Your task to perform on an android device: What is the recent news? Image 0: 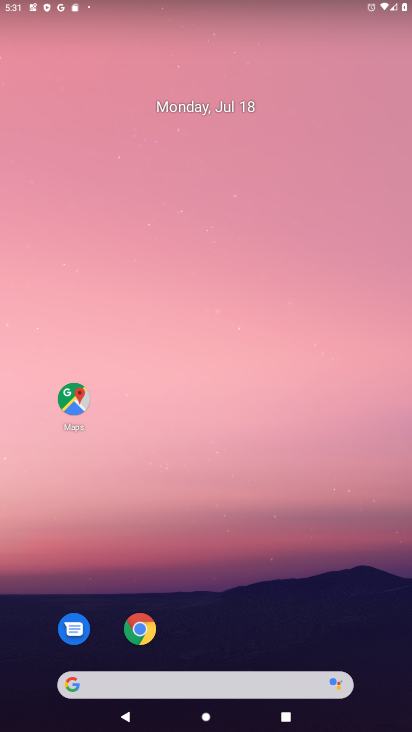
Step 0: drag from (233, 644) to (245, 157)
Your task to perform on an android device: What is the recent news? Image 1: 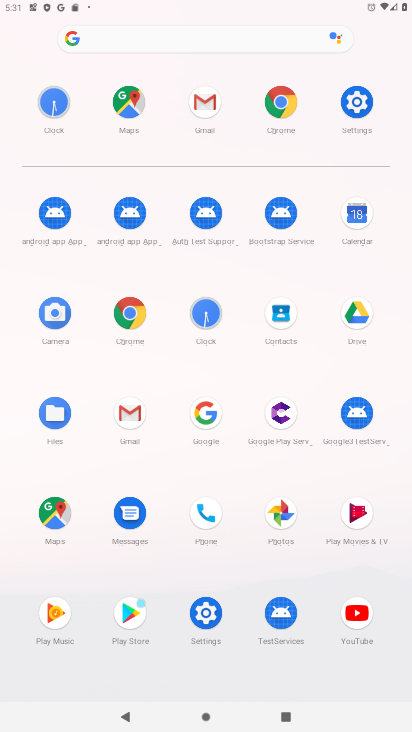
Step 1: click (275, 101)
Your task to perform on an android device: What is the recent news? Image 2: 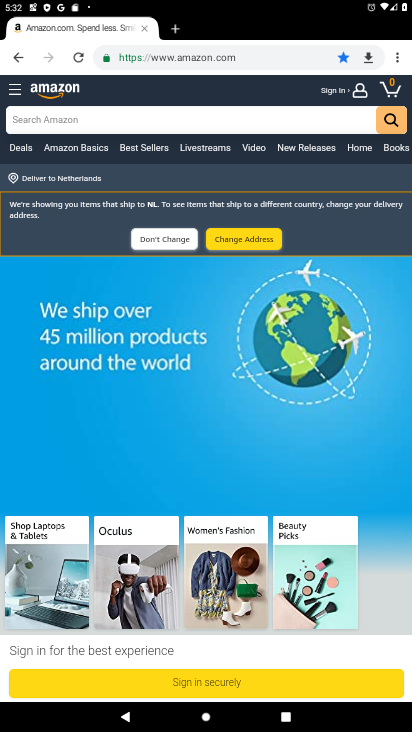
Step 2: click (258, 53)
Your task to perform on an android device: What is the recent news? Image 3: 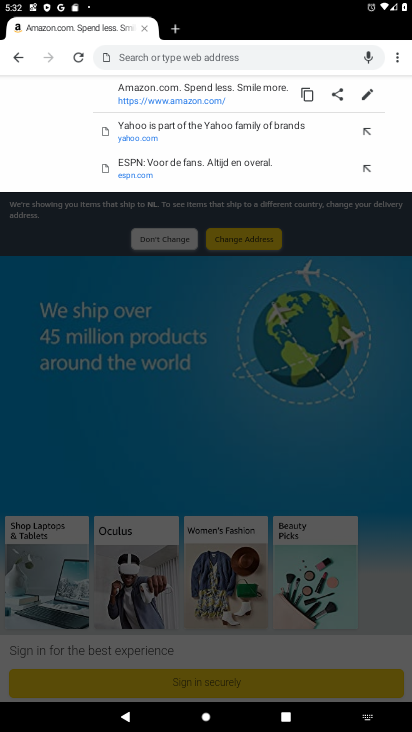
Step 3: type "news"
Your task to perform on an android device: What is the recent news? Image 4: 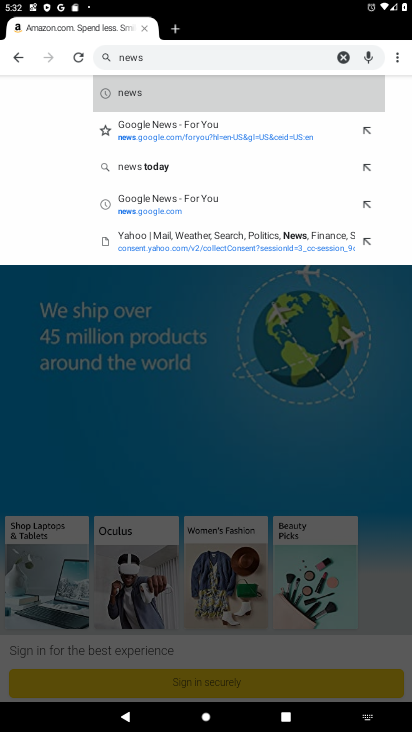
Step 4: click (206, 93)
Your task to perform on an android device: What is the recent news? Image 5: 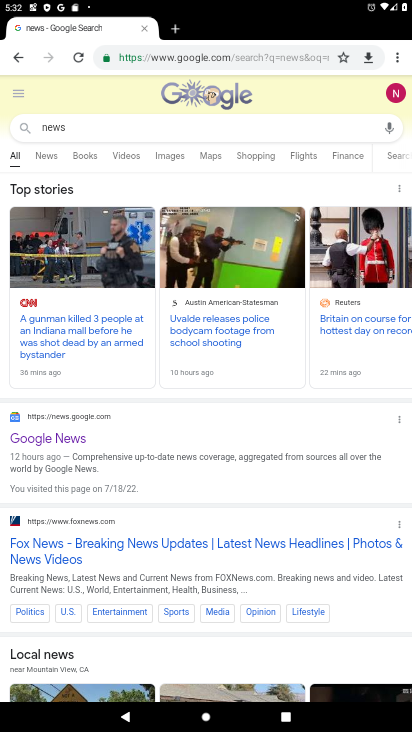
Step 5: click (80, 436)
Your task to perform on an android device: What is the recent news? Image 6: 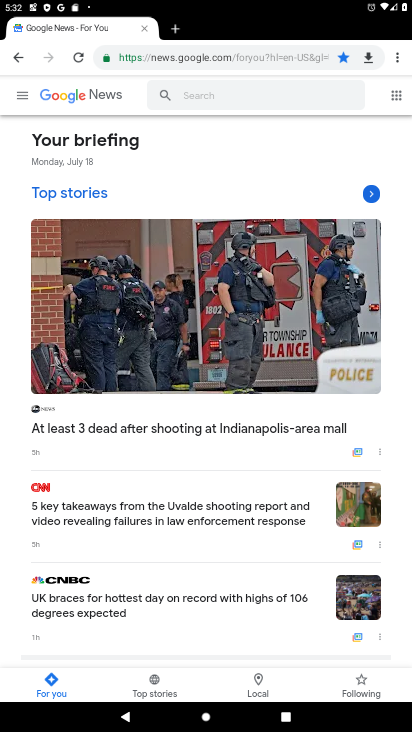
Step 6: task complete